Your task to perform on an android device: Search for pizza restaurants on Maps Image 0: 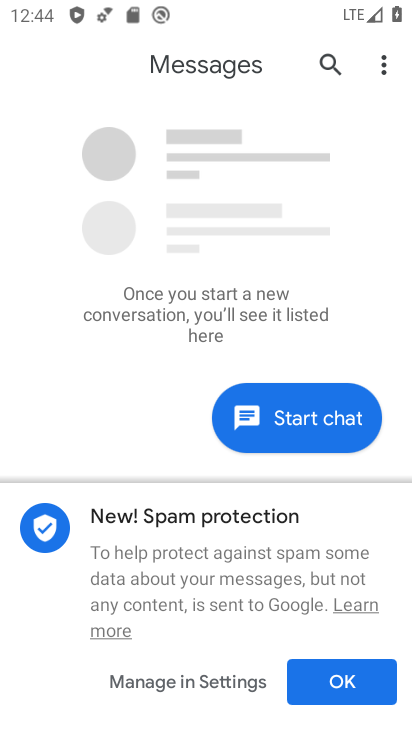
Step 0: press home button
Your task to perform on an android device: Search for pizza restaurants on Maps Image 1: 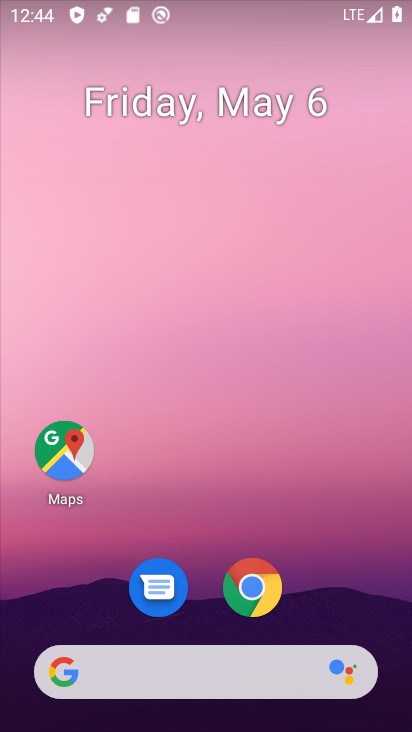
Step 1: click (57, 458)
Your task to perform on an android device: Search for pizza restaurants on Maps Image 2: 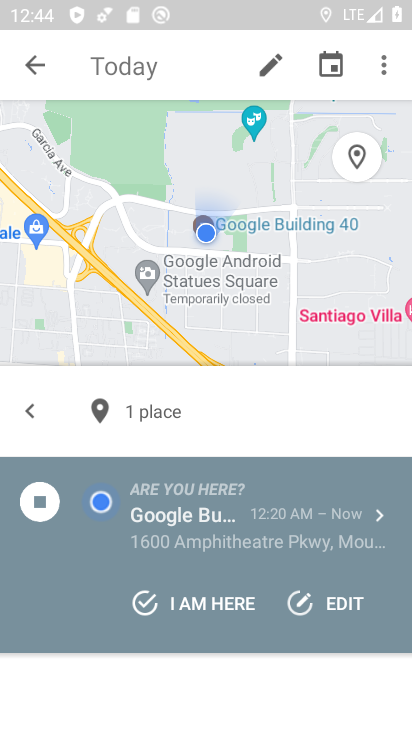
Step 2: click (29, 61)
Your task to perform on an android device: Search for pizza restaurants on Maps Image 3: 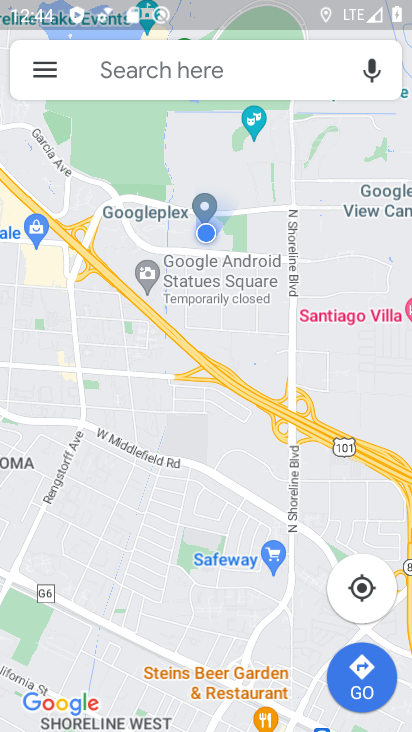
Step 3: click (184, 77)
Your task to perform on an android device: Search for pizza restaurants on Maps Image 4: 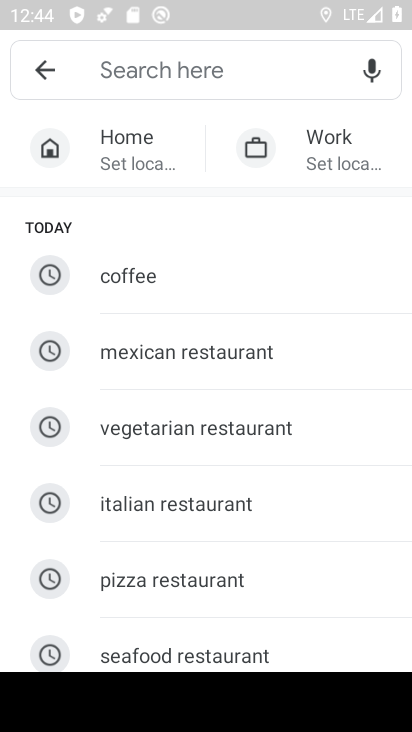
Step 4: click (148, 578)
Your task to perform on an android device: Search for pizza restaurants on Maps Image 5: 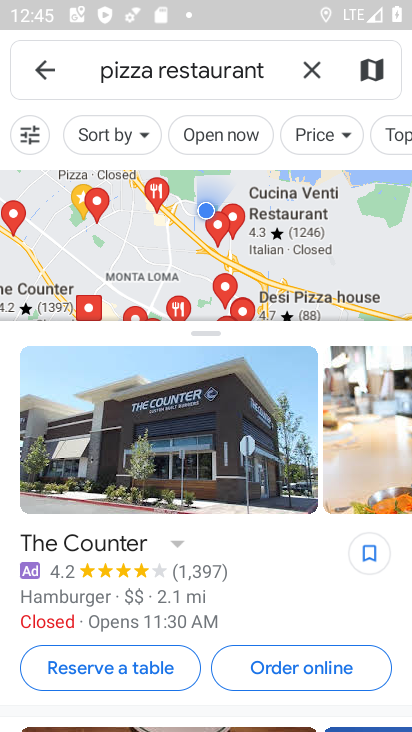
Step 5: task complete